Your task to perform on an android device: What's on my calendar today? Image 0: 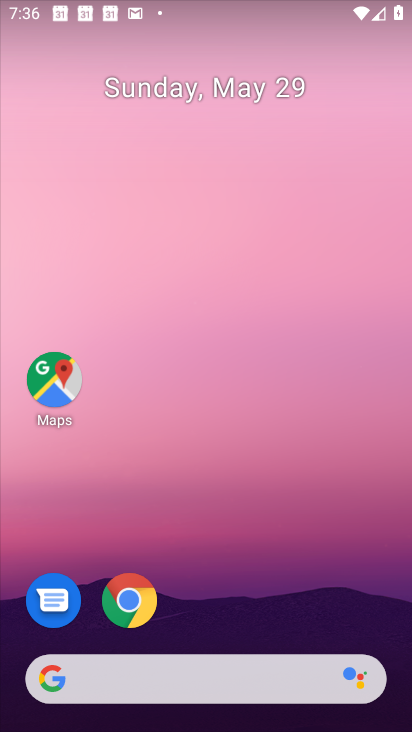
Step 0: drag from (220, 577) to (273, 201)
Your task to perform on an android device: What's on my calendar today? Image 1: 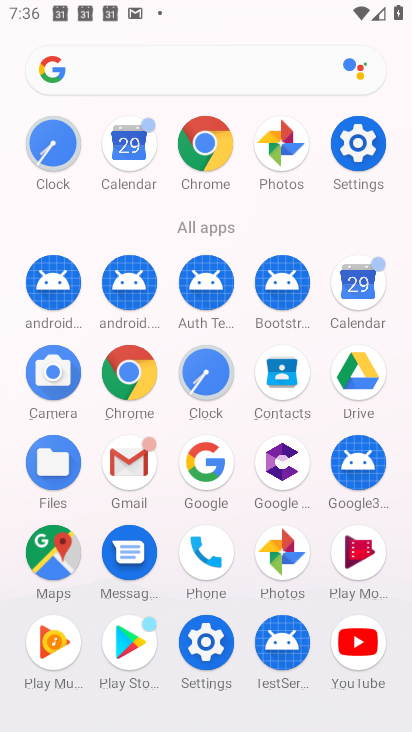
Step 1: click (370, 291)
Your task to perform on an android device: What's on my calendar today? Image 2: 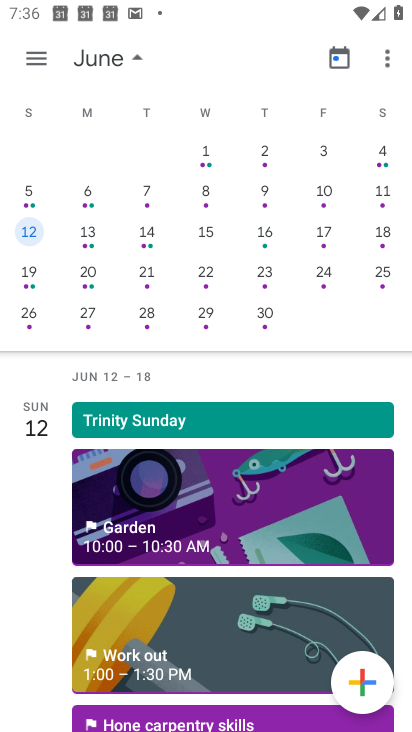
Step 2: drag from (92, 236) to (348, 264)
Your task to perform on an android device: What's on my calendar today? Image 3: 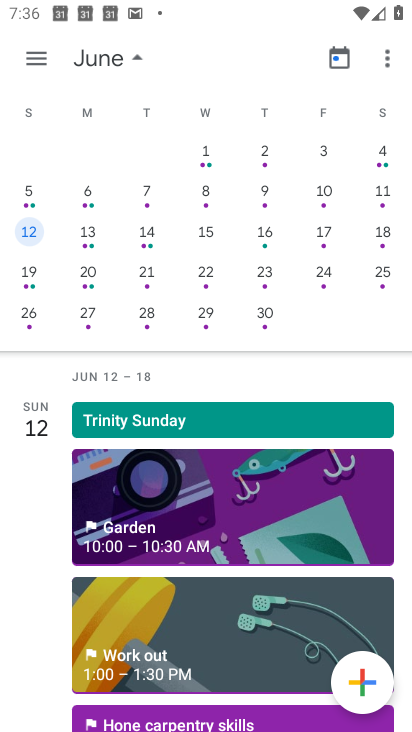
Step 3: drag from (9, 222) to (399, 239)
Your task to perform on an android device: What's on my calendar today? Image 4: 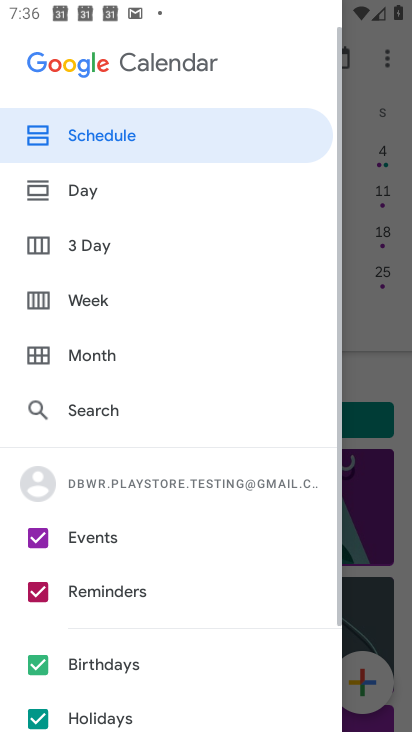
Step 4: drag from (307, 253) to (22, 253)
Your task to perform on an android device: What's on my calendar today? Image 5: 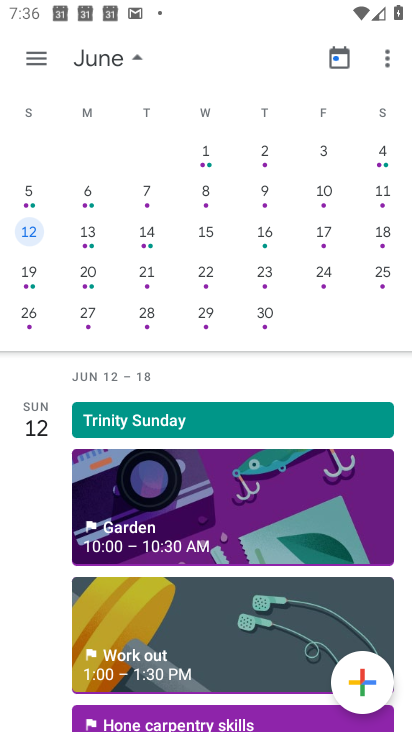
Step 5: drag from (184, 239) to (408, 257)
Your task to perform on an android device: What's on my calendar today? Image 6: 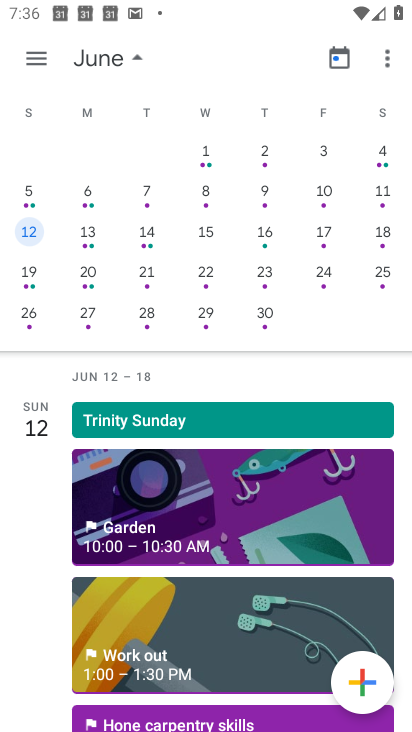
Step 6: drag from (115, 220) to (396, 220)
Your task to perform on an android device: What's on my calendar today? Image 7: 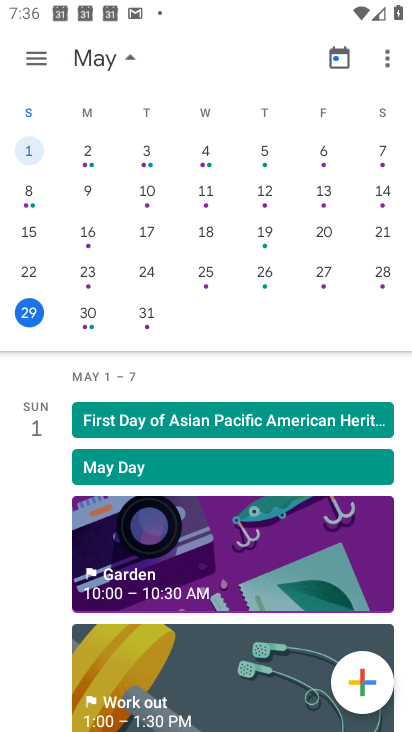
Step 7: click (83, 322)
Your task to perform on an android device: What's on my calendar today? Image 8: 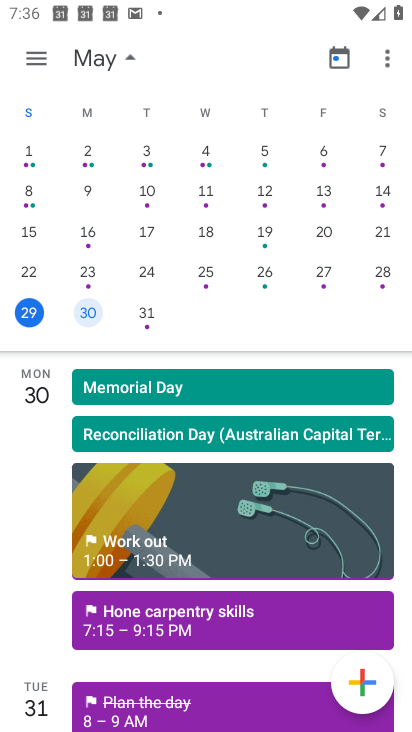
Step 8: click (30, 314)
Your task to perform on an android device: What's on my calendar today? Image 9: 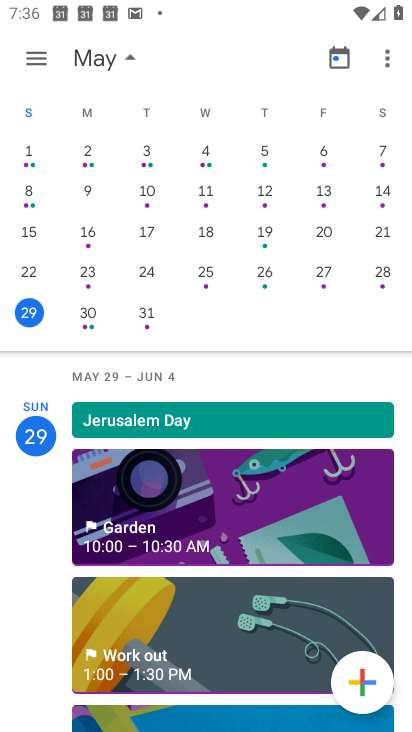
Step 9: task complete